Your task to perform on an android device: Play the last video I watched on Youtube Image 0: 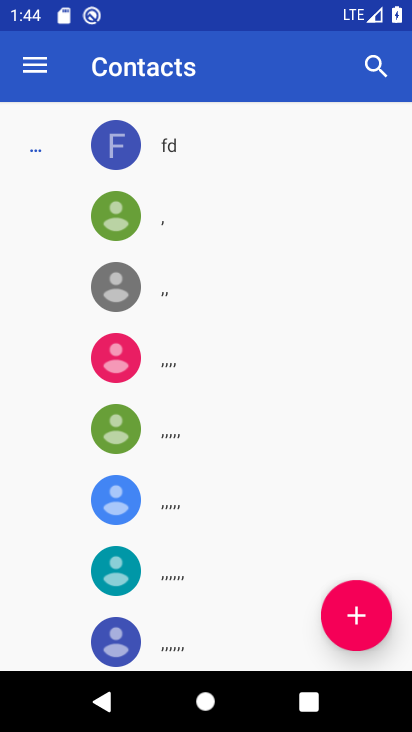
Step 0: press home button
Your task to perform on an android device: Play the last video I watched on Youtube Image 1: 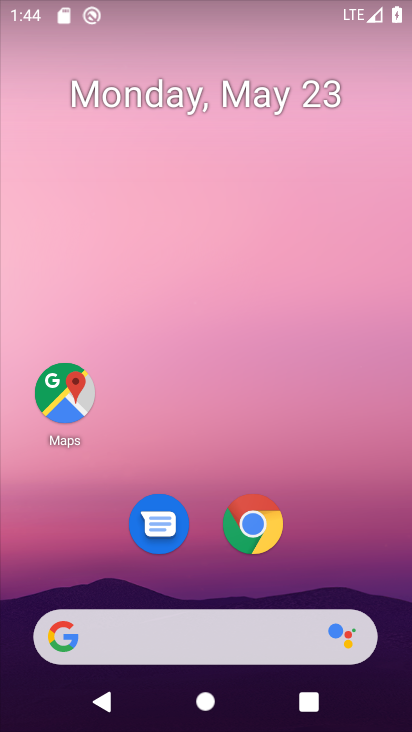
Step 1: drag from (333, 514) to (409, 86)
Your task to perform on an android device: Play the last video I watched on Youtube Image 2: 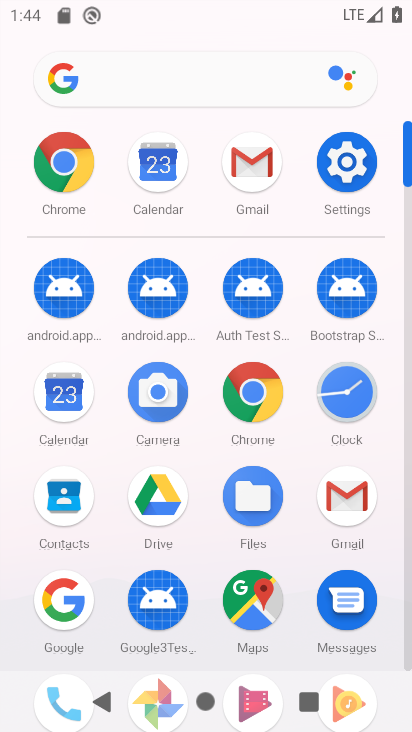
Step 2: drag from (309, 533) to (349, 218)
Your task to perform on an android device: Play the last video I watched on Youtube Image 3: 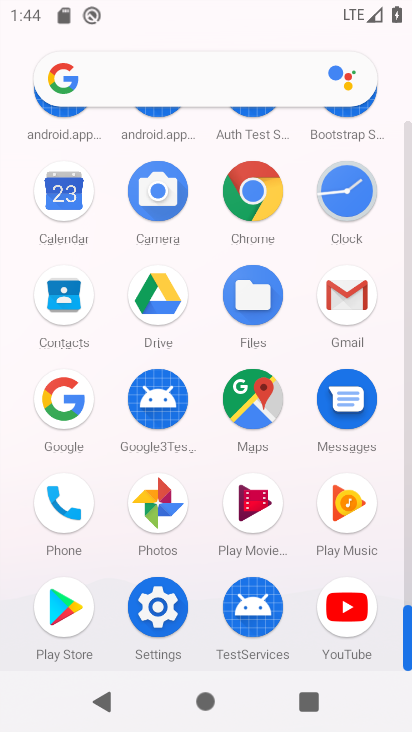
Step 3: click (350, 593)
Your task to perform on an android device: Play the last video I watched on Youtube Image 4: 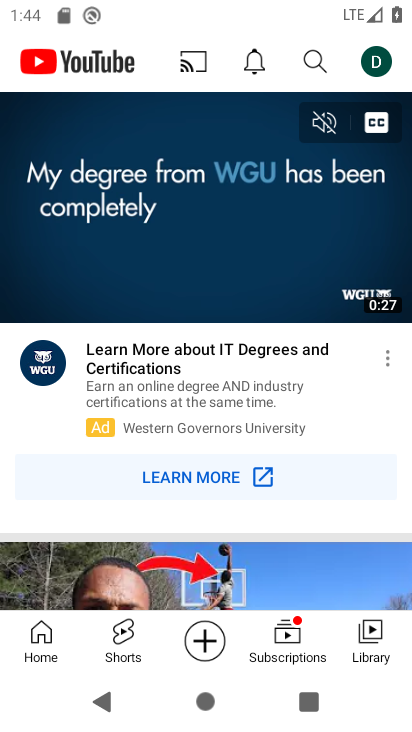
Step 4: click (365, 634)
Your task to perform on an android device: Play the last video I watched on Youtube Image 5: 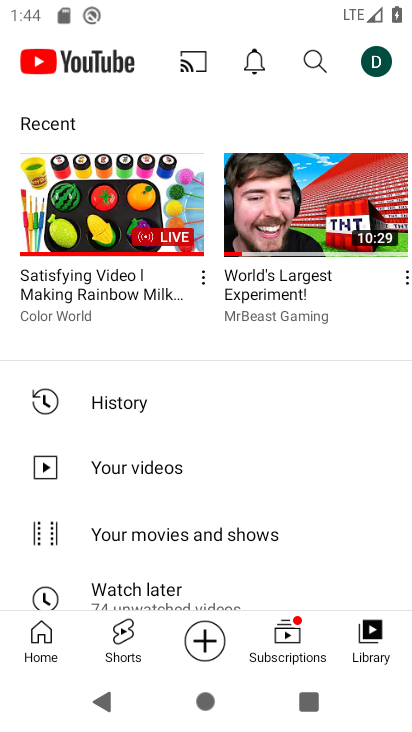
Step 5: click (143, 402)
Your task to perform on an android device: Play the last video I watched on Youtube Image 6: 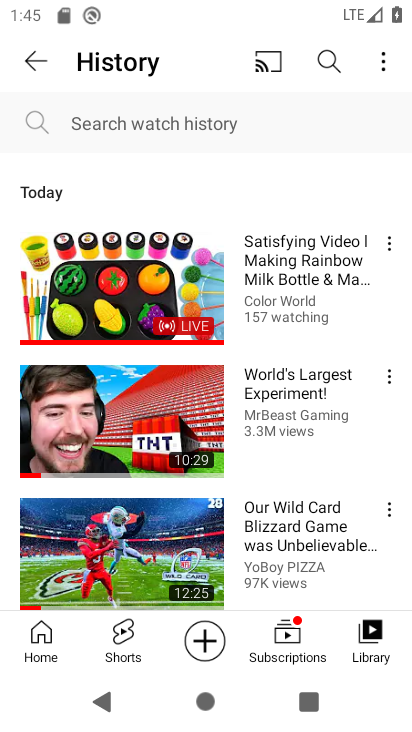
Step 6: click (147, 284)
Your task to perform on an android device: Play the last video I watched on Youtube Image 7: 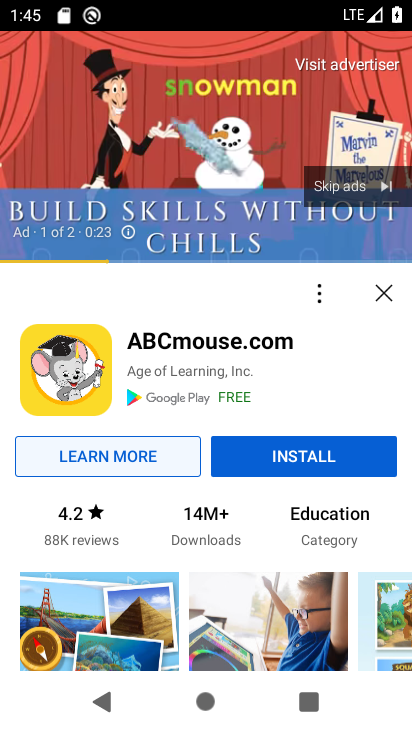
Step 7: click (365, 189)
Your task to perform on an android device: Play the last video I watched on Youtube Image 8: 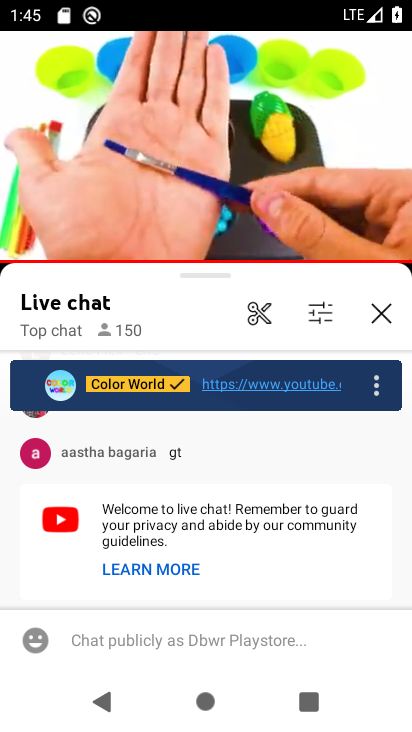
Step 8: task complete